Your task to perform on an android device: turn on data saver in the chrome app Image 0: 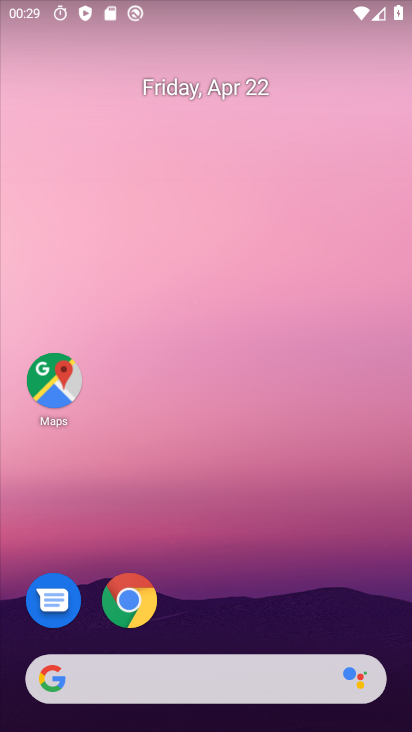
Step 0: click (142, 602)
Your task to perform on an android device: turn on data saver in the chrome app Image 1: 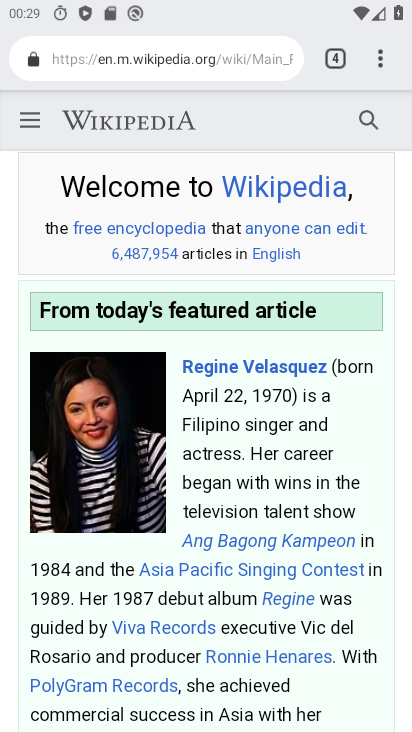
Step 1: click (382, 54)
Your task to perform on an android device: turn on data saver in the chrome app Image 2: 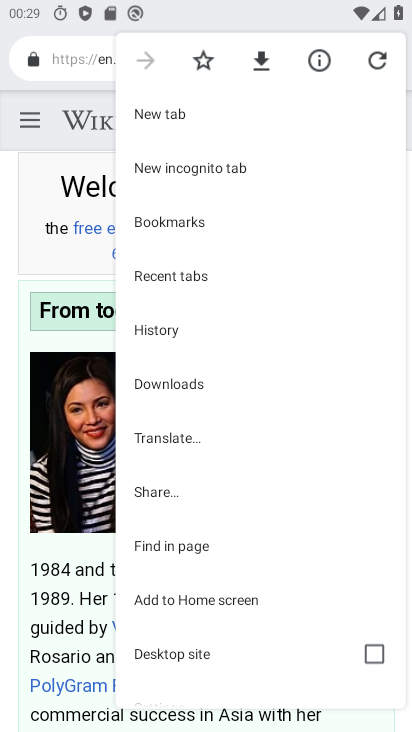
Step 2: drag from (182, 530) to (233, 181)
Your task to perform on an android device: turn on data saver in the chrome app Image 3: 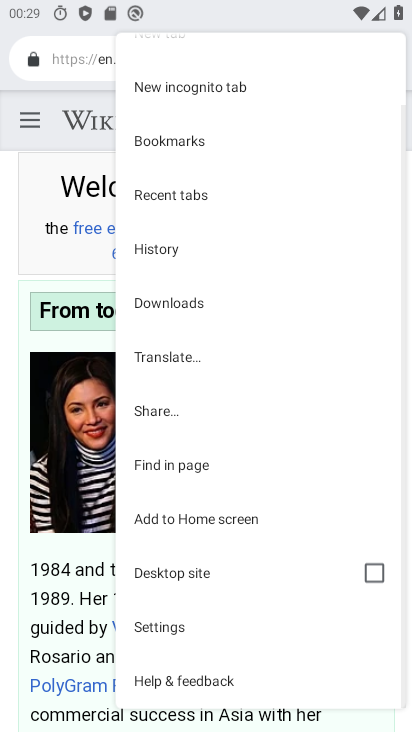
Step 3: click (171, 643)
Your task to perform on an android device: turn on data saver in the chrome app Image 4: 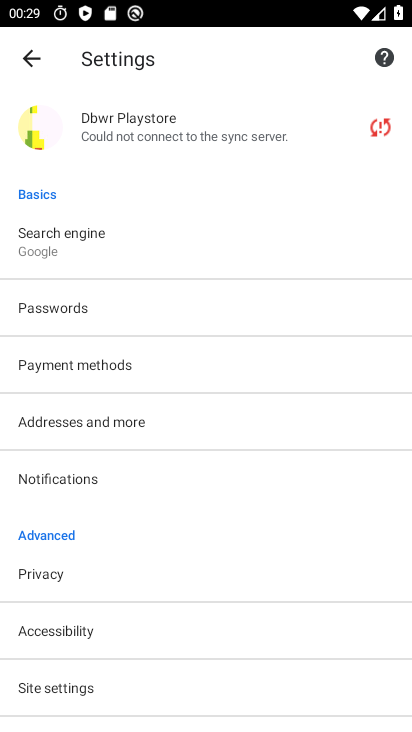
Step 4: drag from (99, 576) to (138, 190)
Your task to perform on an android device: turn on data saver in the chrome app Image 5: 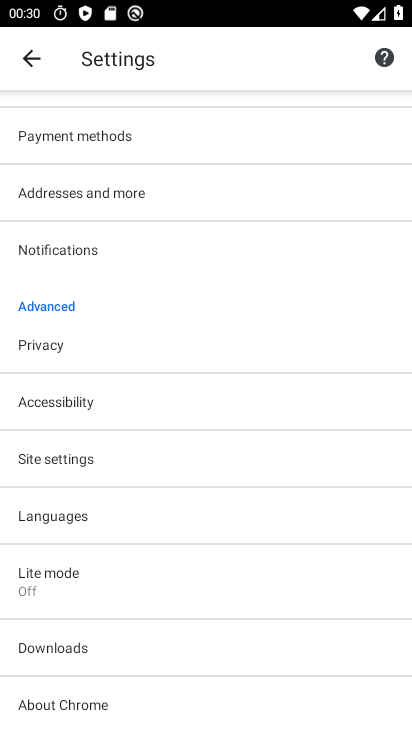
Step 5: click (91, 574)
Your task to perform on an android device: turn on data saver in the chrome app Image 6: 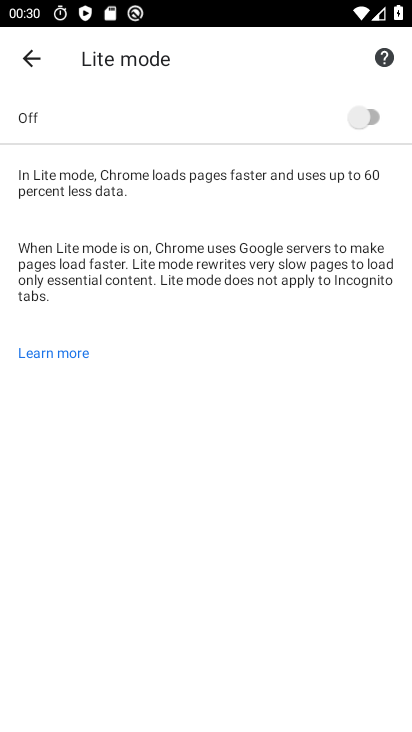
Step 6: click (364, 123)
Your task to perform on an android device: turn on data saver in the chrome app Image 7: 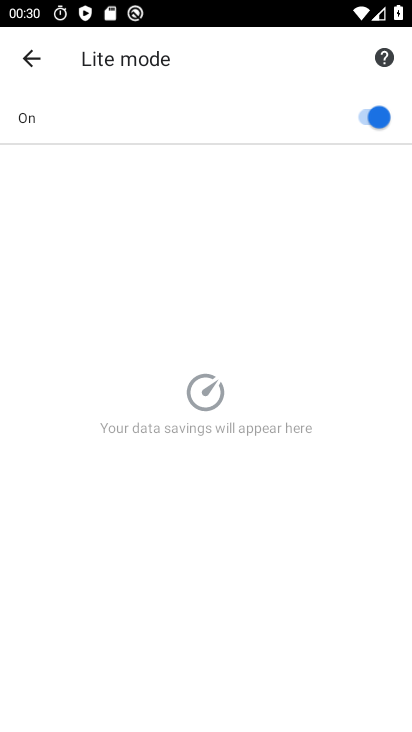
Step 7: task complete